Your task to perform on an android device: Go to Yahoo.com Image 0: 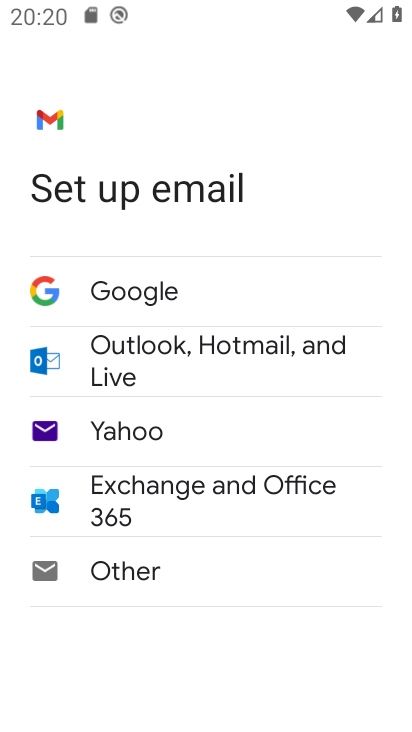
Step 0: press back button
Your task to perform on an android device: Go to Yahoo.com Image 1: 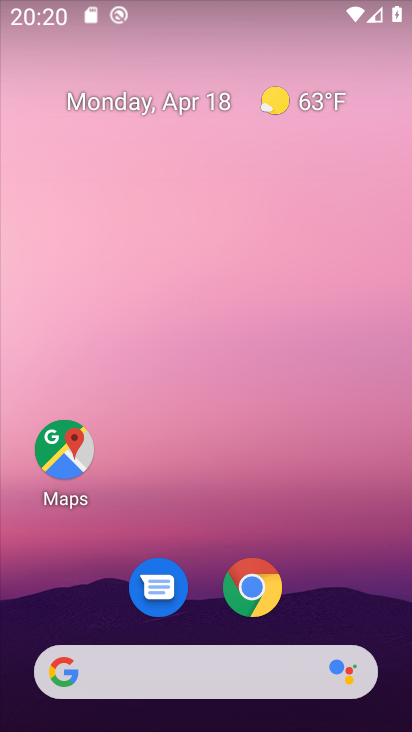
Step 1: press back button
Your task to perform on an android device: Go to Yahoo.com Image 2: 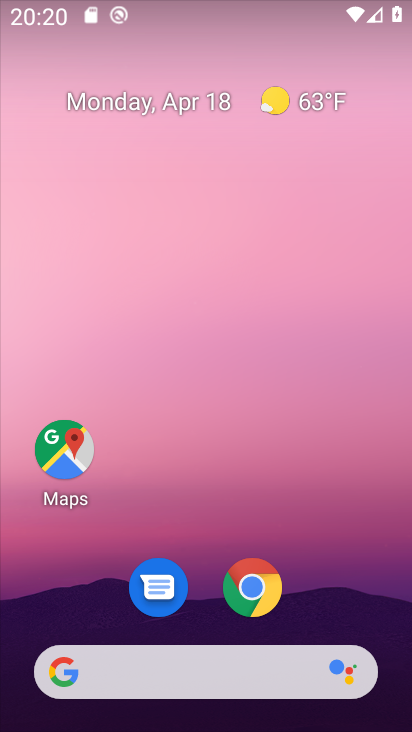
Step 2: drag from (310, 617) to (368, 0)
Your task to perform on an android device: Go to Yahoo.com Image 3: 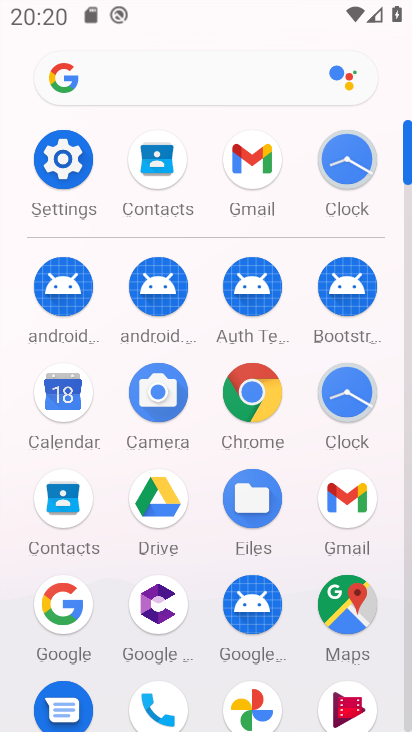
Step 3: click (253, 384)
Your task to perform on an android device: Go to Yahoo.com Image 4: 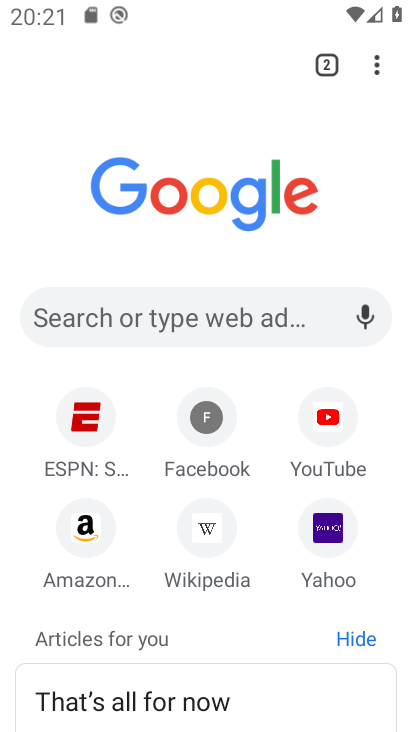
Step 4: click (164, 307)
Your task to perform on an android device: Go to Yahoo.com Image 5: 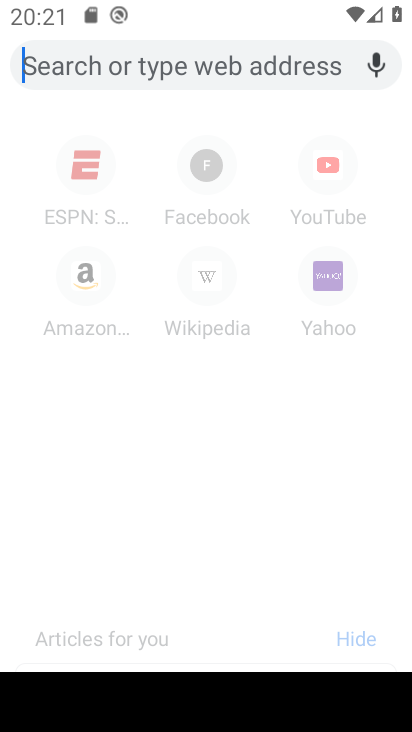
Step 5: type "yahoo.com"
Your task to perform on an android device: Go to Yahoo.com Image 6: 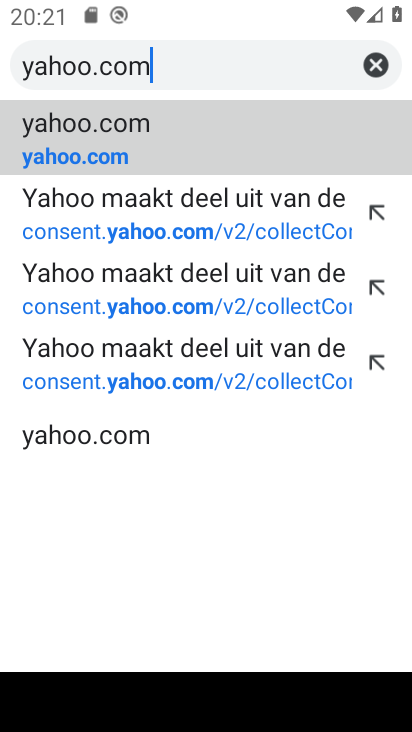
Step 6: click (134, 147)
Your task to perform on an android device: Go to Yahoo.com Image 7: 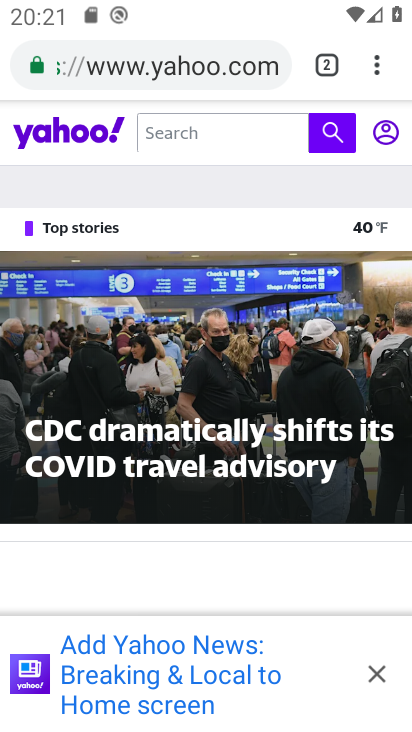
Step 7: task complete